Your task to perform on an android device: What is the recent news? Image 0: 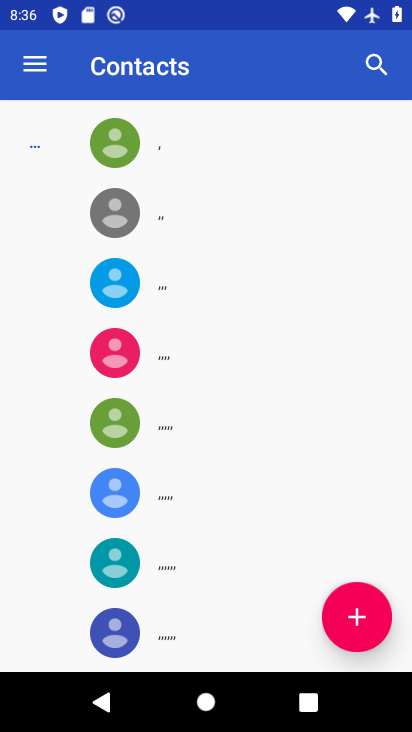
Step 0: press home button
Your task to perform on an android device: What is the recent news? Image 1: 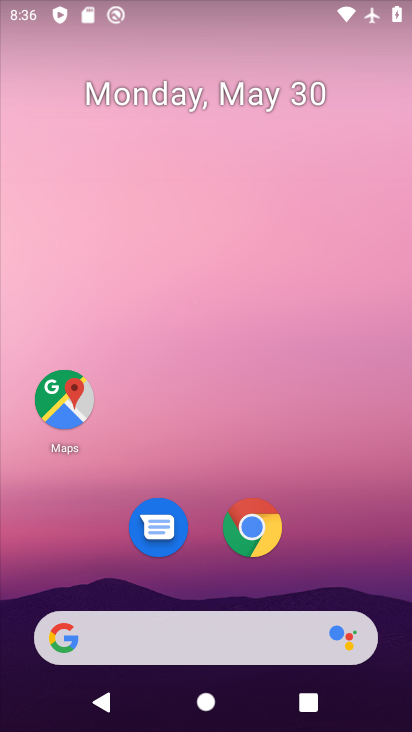
Step 1: click (169, 628)
Your task to perform on an android device: What is the recent news? Image 2: 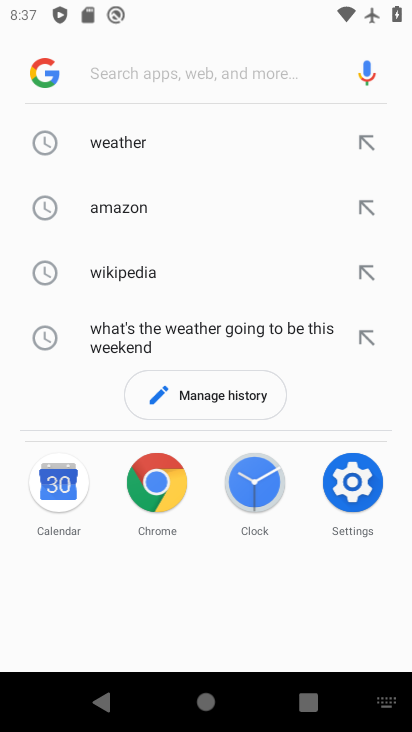
Step 2: type "what is the recent news"
Your task to perform on an android device: What is the recent news? Image 3: 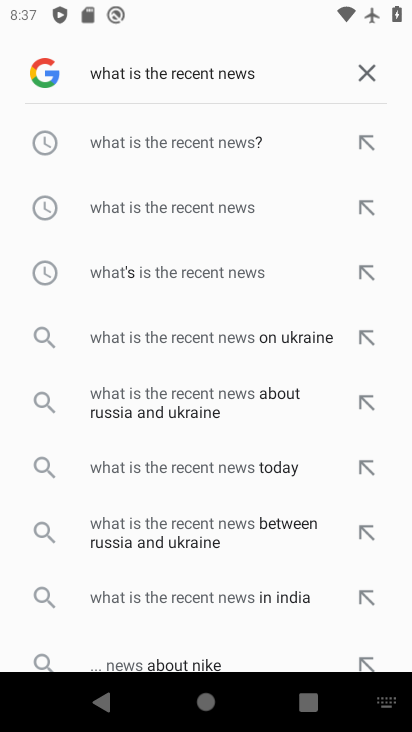
Step 3: click (236, 128)
Your task to perform on an android device: What is the recent news? Image 4: 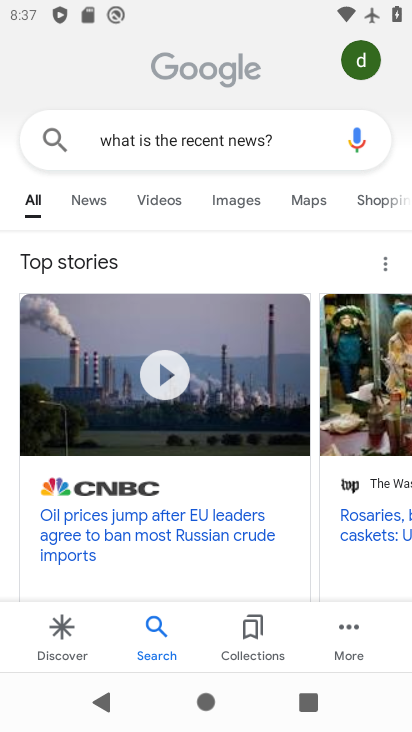
Step 4: click (80, 200)
Your task to perform on an android device: What is the recent news? Image 5: 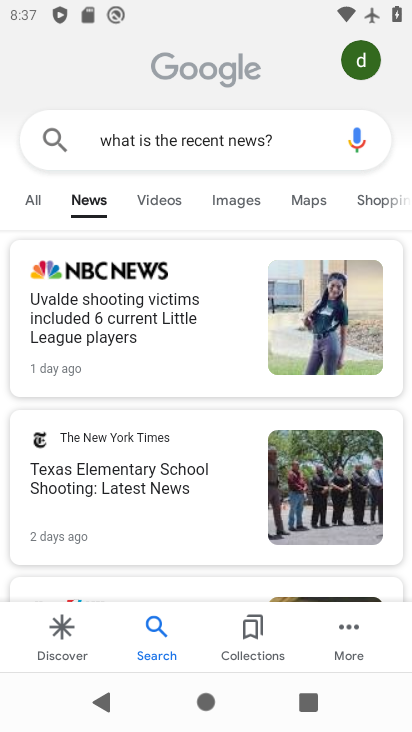
Step 5: task complete